Your task to perform on an android device: toggle airplane mode Image 0: 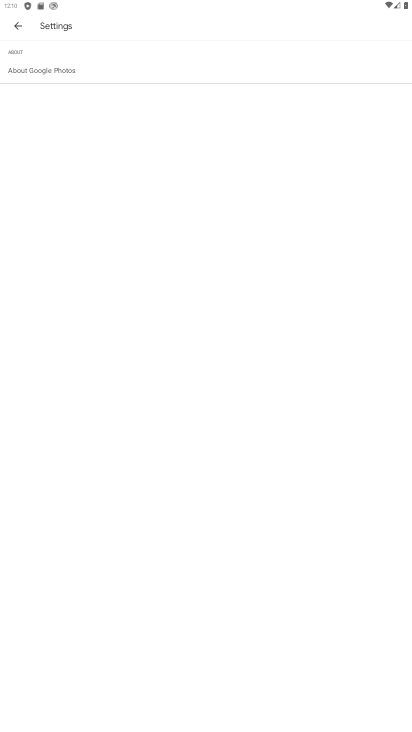
Step 0: press home button
Your task to perform on an android device: toggle airplane mode Image 1: 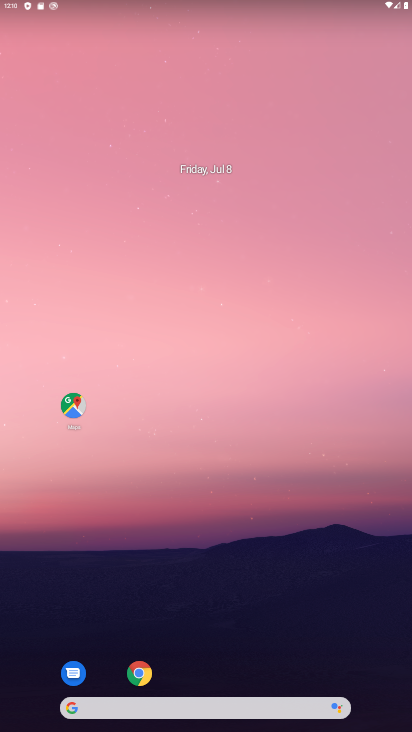
Step 1: drag from (210, 656) to (253, 124)
Your task to perform on an android device: toggle airplane mode Image 2: 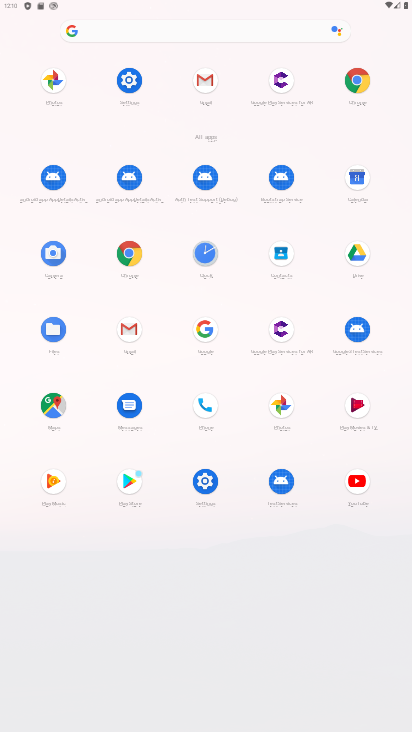
Step 2: click (130, 76)
Your task to perform on an android device: toggle airplane mode Image 3: 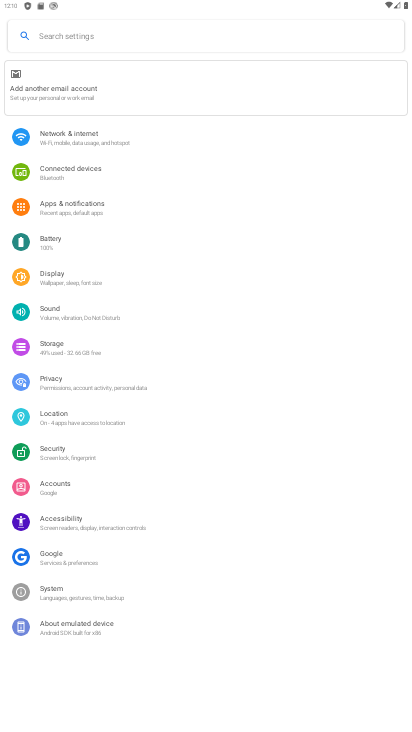
Step 3: click (78, 134)
Your task to perform on an android device: toggle airplane mode Image 4: 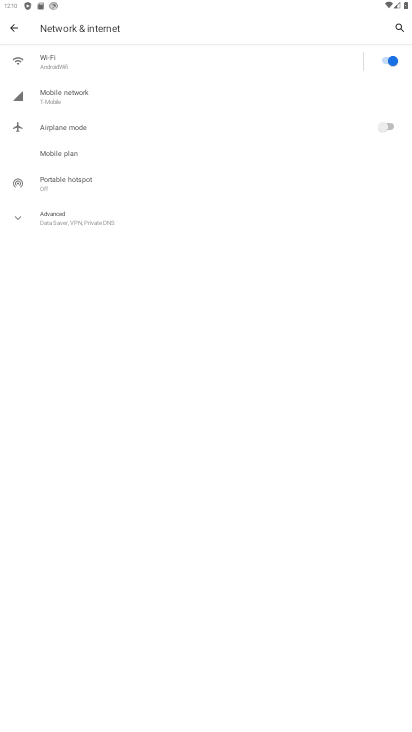
Step 4: click (388, 126)
Your task to perform on an android device: toggle airplane mode Image 5: 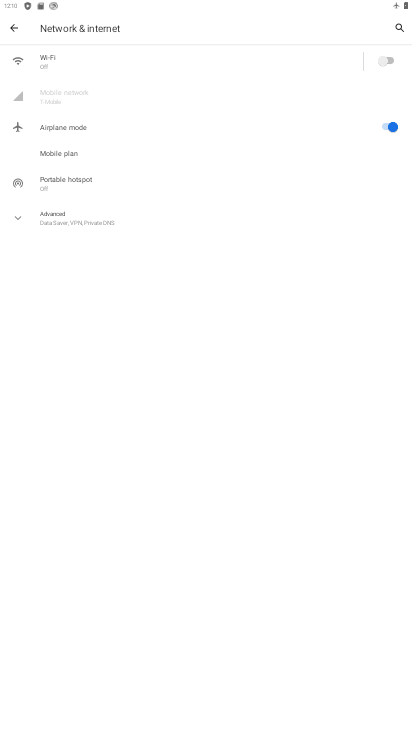
Step 5: task complete